Your task to perform on an android device: open app "Upside-Cash back on gas & food" Image 0: 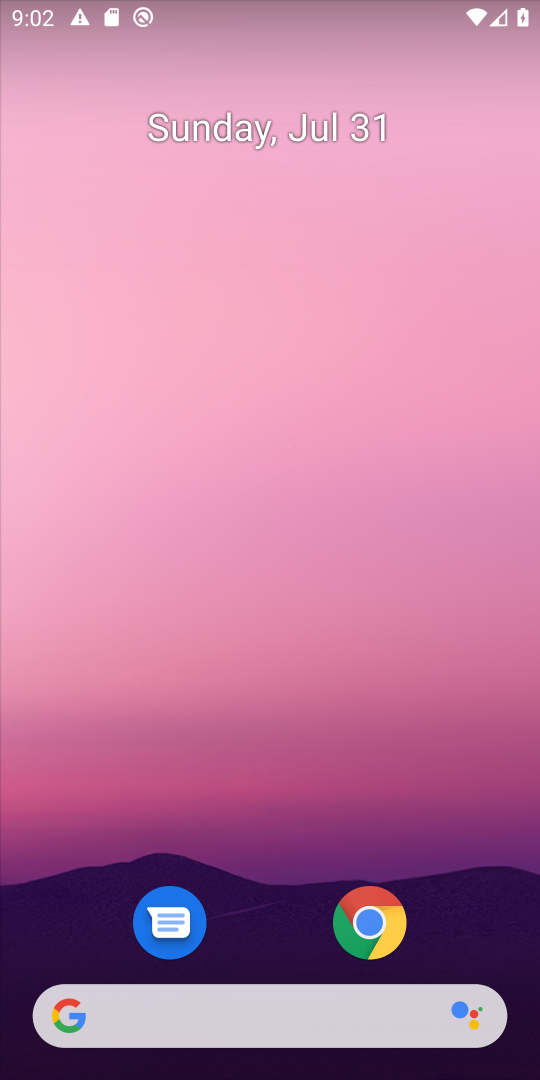
Step 0: drag from (350, 744) to (334, 149)
Your task to perform on an android device: open app "Upside-Cash back on gas & food" Image 1: 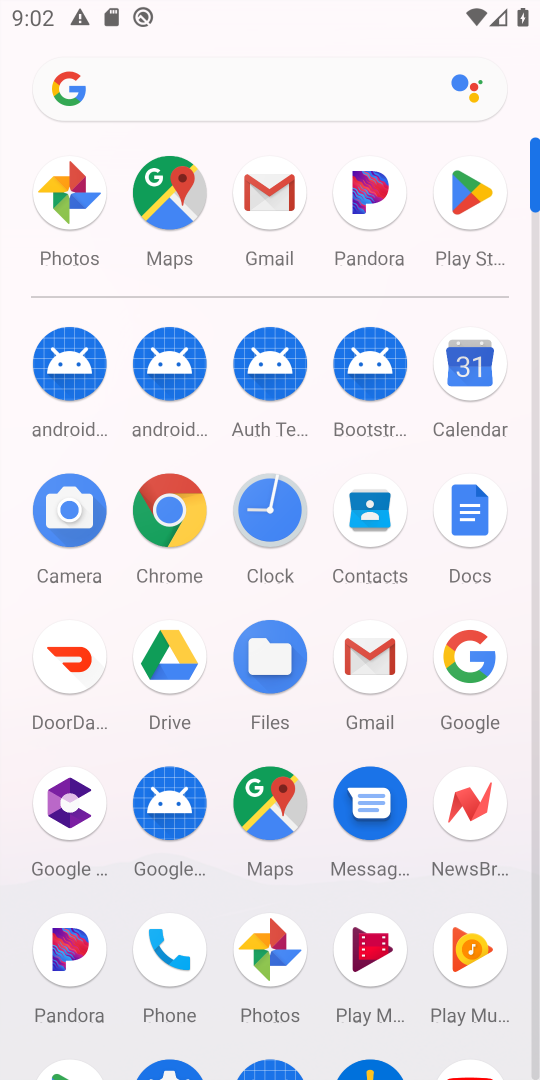
Step 1: click (467, 188)
Your task to perform on an android device: open app "Upside-Cash back on gas & food" Image 2: 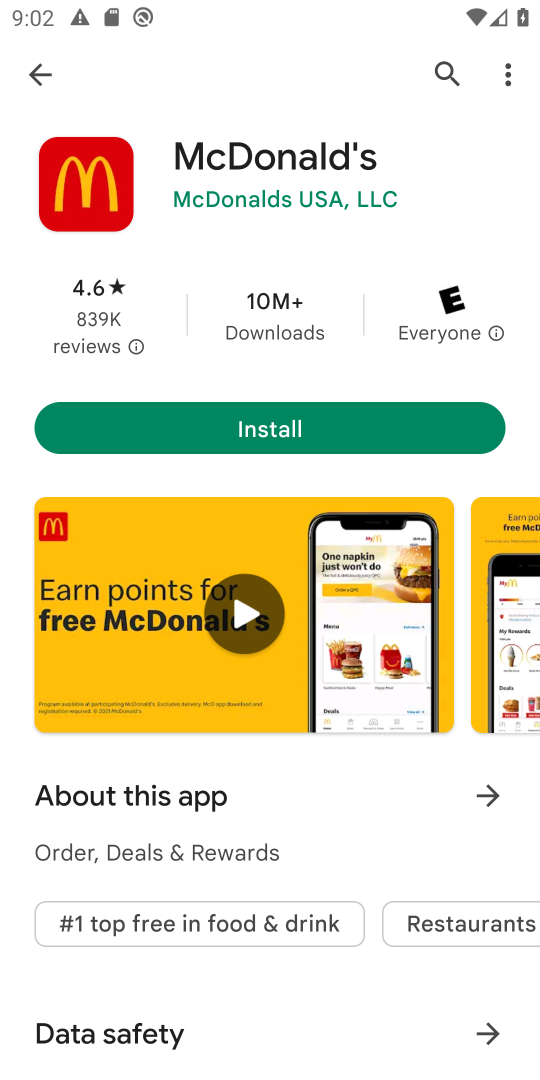
Step 2: click (442, 68)
Your task to perform on an android device: open app "Upside-Cash back on gas & food" Image 3: 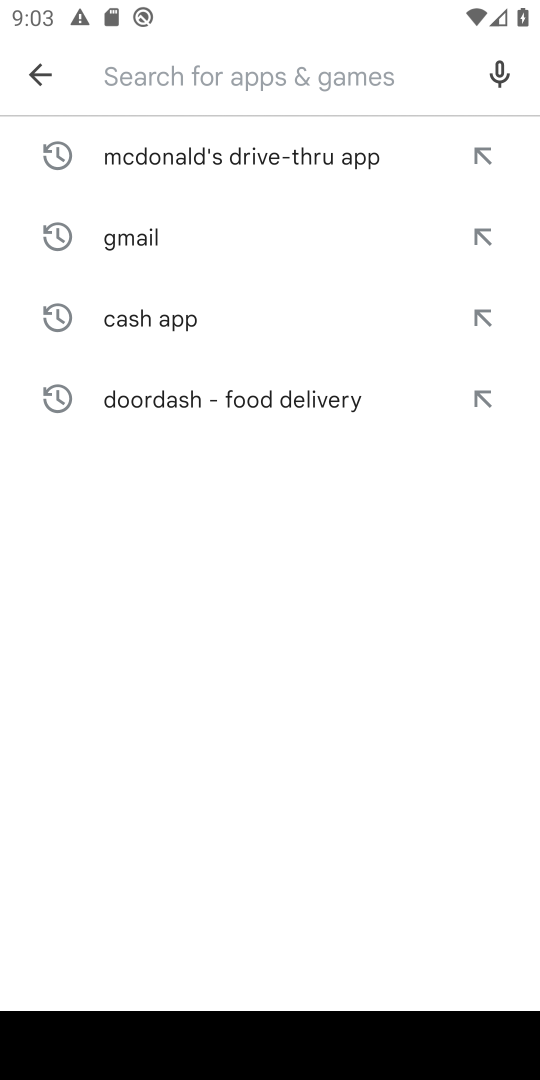
Step 3: type "Upside-Cash back on gas & food"
Your task to perform on an android device: open app "Upside-Cash back on gas & food" Image 4: 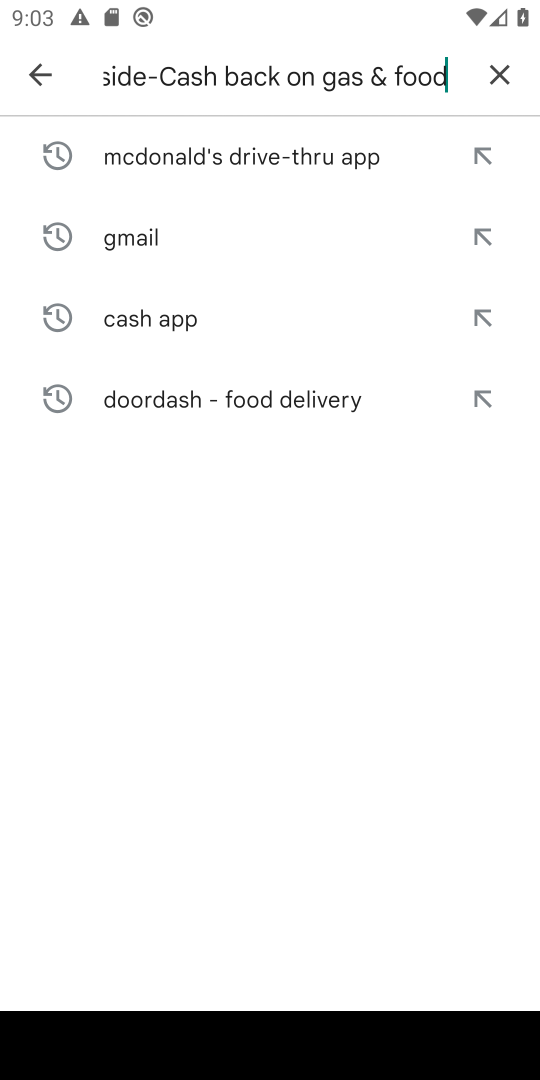
Step 4: type ""
Your task to perform on an android device: open app "Upside-Cash back on gas & food" Image 5: 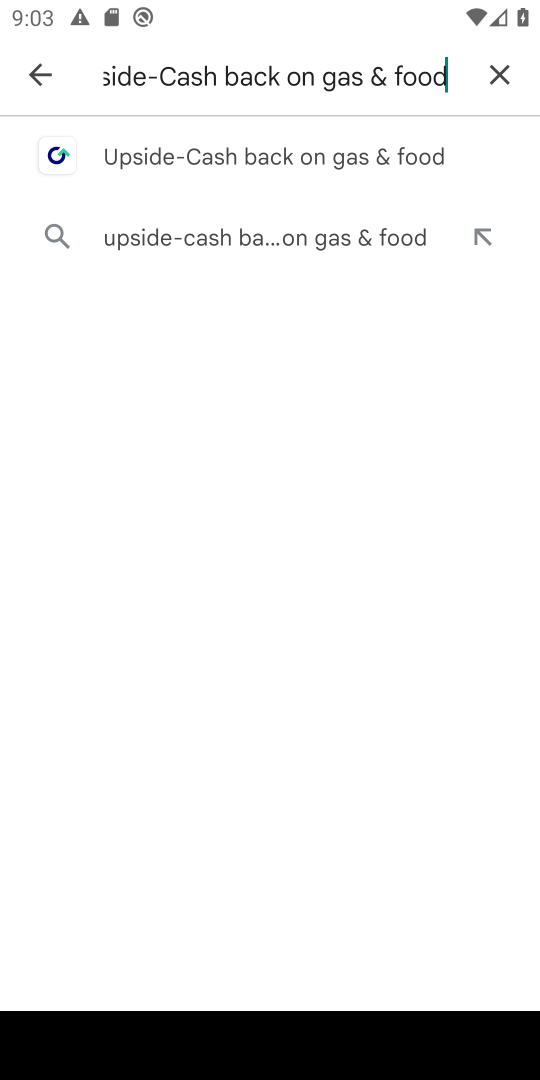
Step 5: click (233, 150)
Your task to perform on an android device: open app "Upside-Cash back on gas & food" Image 6: 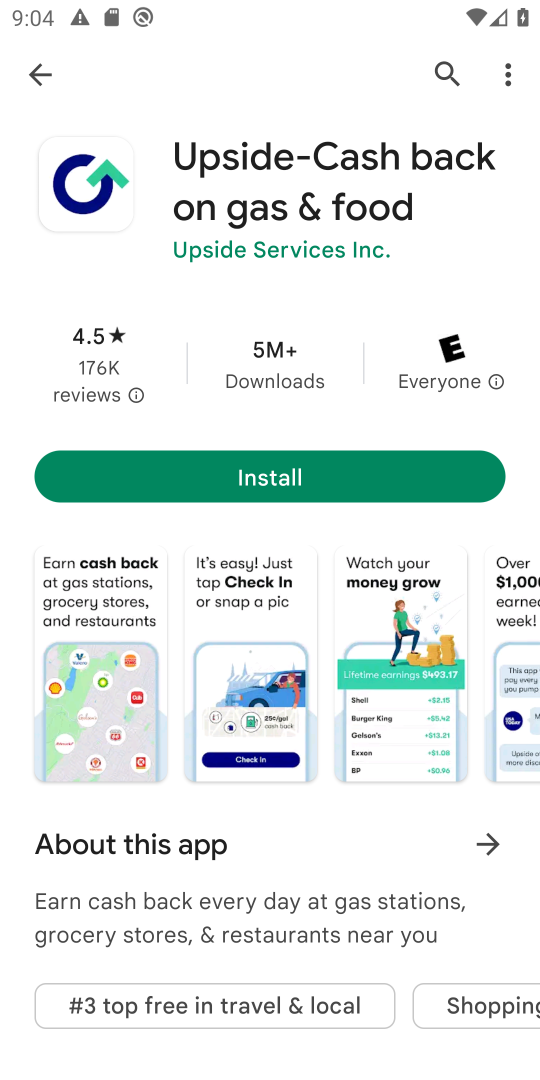
Step 6: task complete